Your task to perform on an android device: change the clock style Image 0: 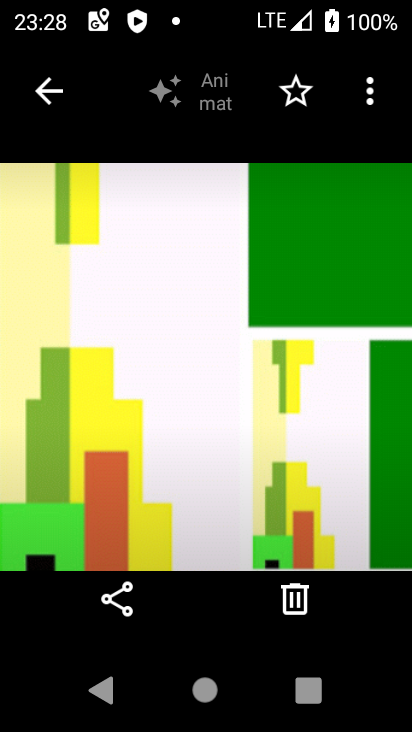
Step 0: press home button
Your task to perform on an android device: change the clock style Image 1: 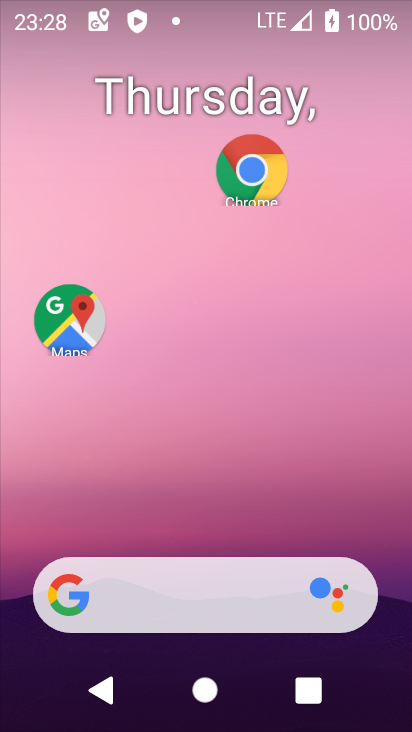
Step 1: drag from (229, 563) to (296, 243)
Your task to perform on an android device: change the clock style Image 2: 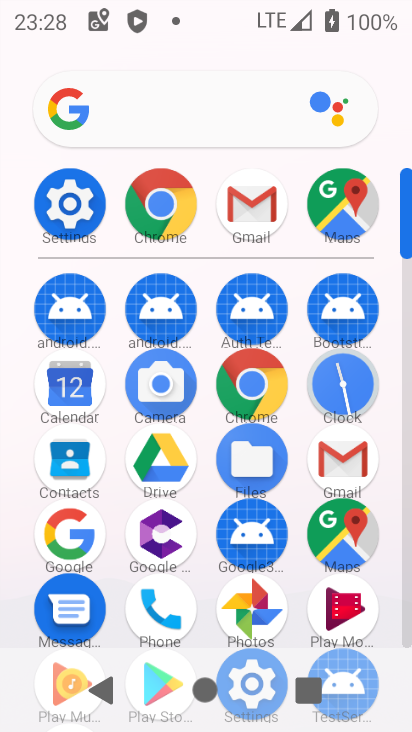
Step 2: click (365, 402)
Your task to perform on an android device: change the clock style Image 3: 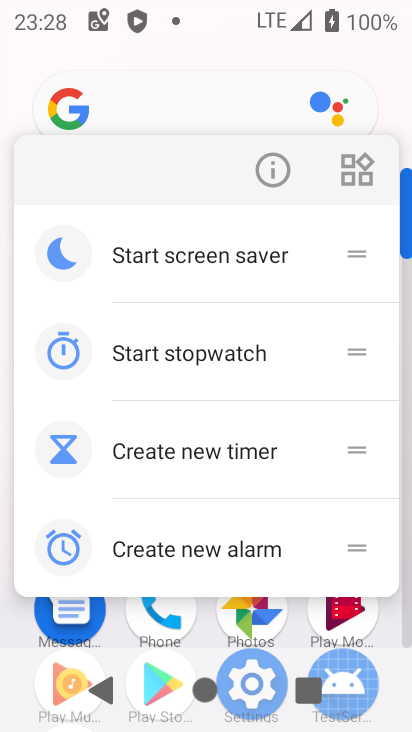
Step 3: click (5, 671)
Your task to perform on an android device: change the clock style Image 4: 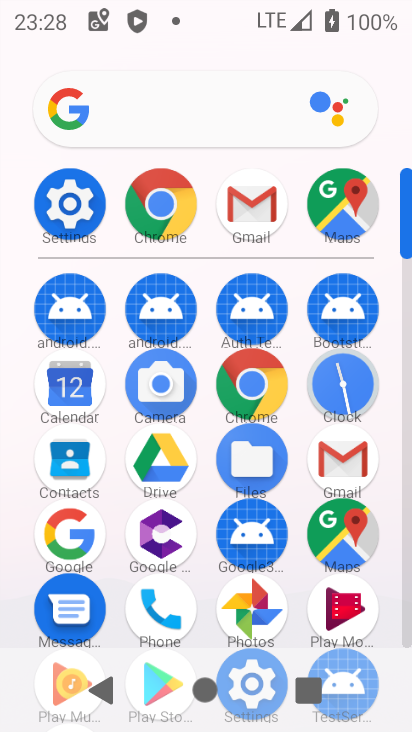
Step 4: click (351, 395)
Your task to perform on an android device: change the clock style Image 5: 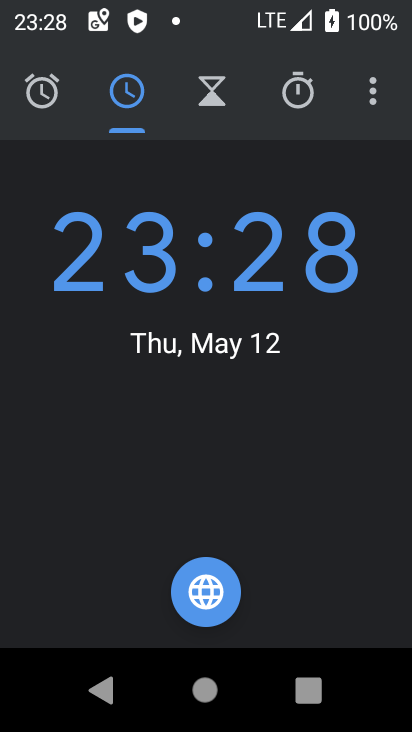
Step 5: click (375, 87)
Your task to perform on an android device: change the clock style Image 6: 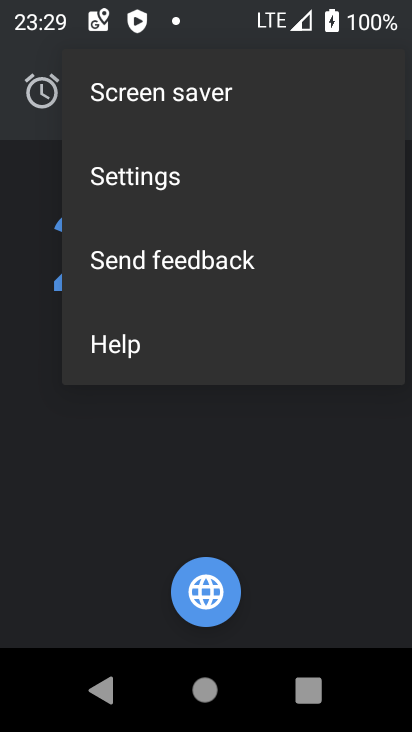
Step 6: click (155, 174)
Your task to perform on an android device: change the clock style Image 7: 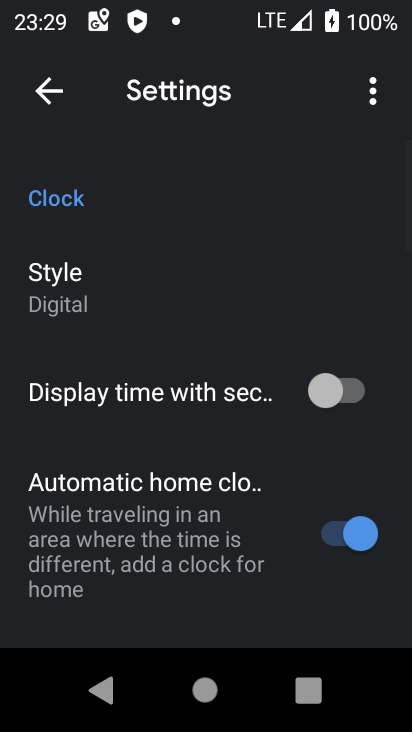
Step 7: drag from (169, 552) to (159, 165)
Your task to perform on an android device: change the clock style Image 8: 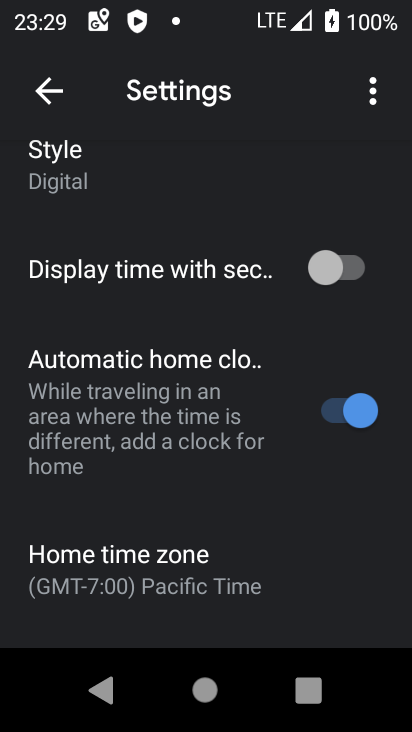
Step 8: drag from (183, 564) to (167, 355)
Your task to perform on an android device: change the clock style Image 9: 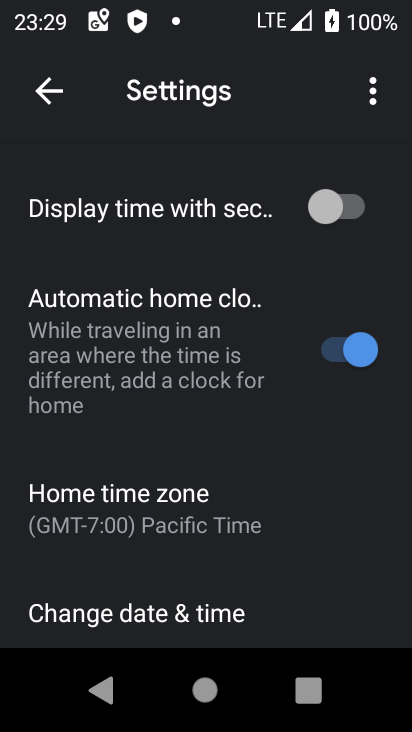
Step 9: drag from (92, 161) to (130, 558)
Your task to perform on an android device: change the clock style Image 10: 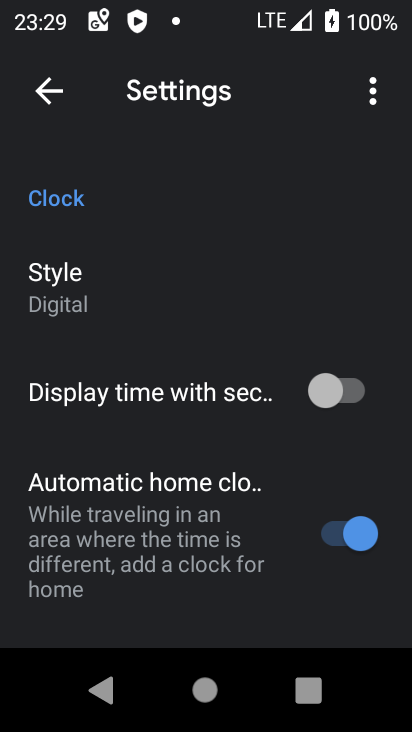
Step 10: click (67, 293)
Your task to perform on an android device: change the clock style Image 11: 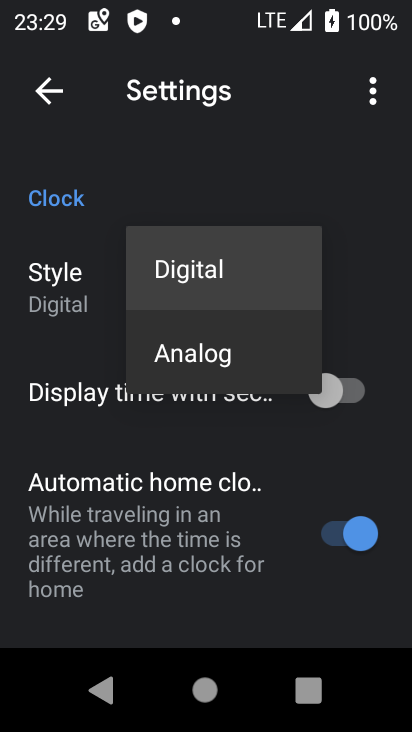
Step 11: click (189, 372)
Your task to perform on an android device: change the clock style Image 12: 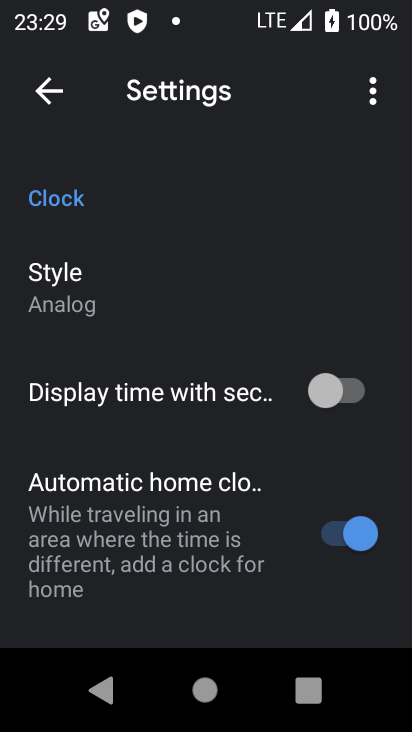
Step 12: task complete